Your task to perform on an android device: How much does a 3 bedroom apartment rent for in New York? Image 0: 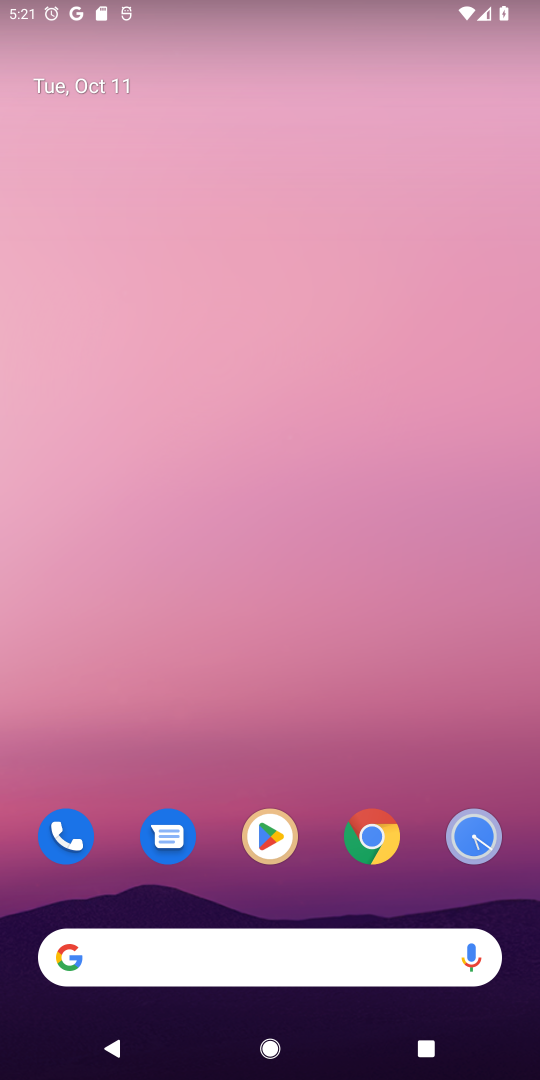
Step 0: click (300, 964)
Your task to perform on an android device: How much does a 3 bedroom apartment rent for in New York? Image 1: 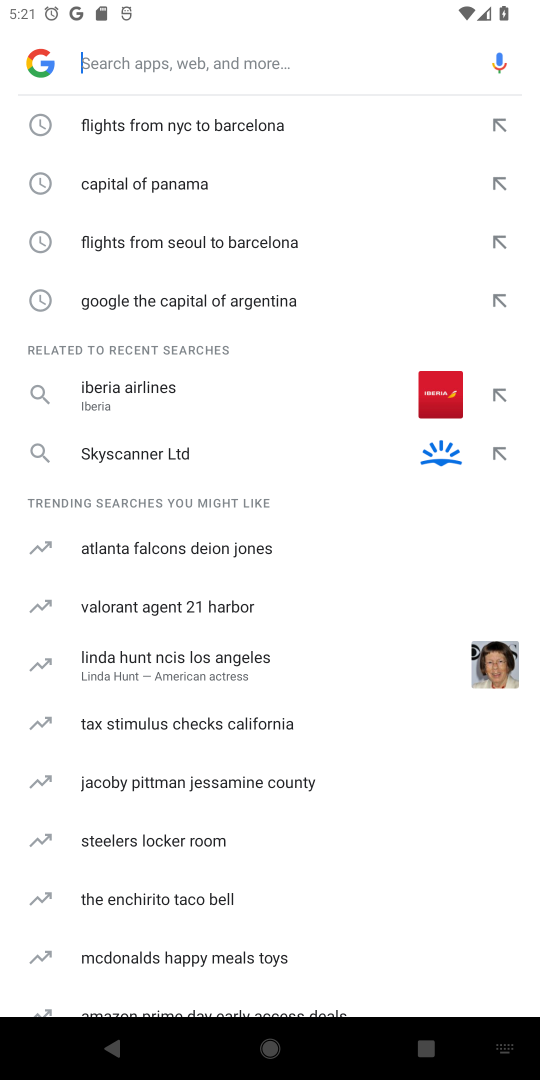
Step 1: type "How much does a 3 bedroom apartment rent for in New York"
Your task to perform on an android device: How much does a 3 bedroom apartment rent for in New York? Image 2: 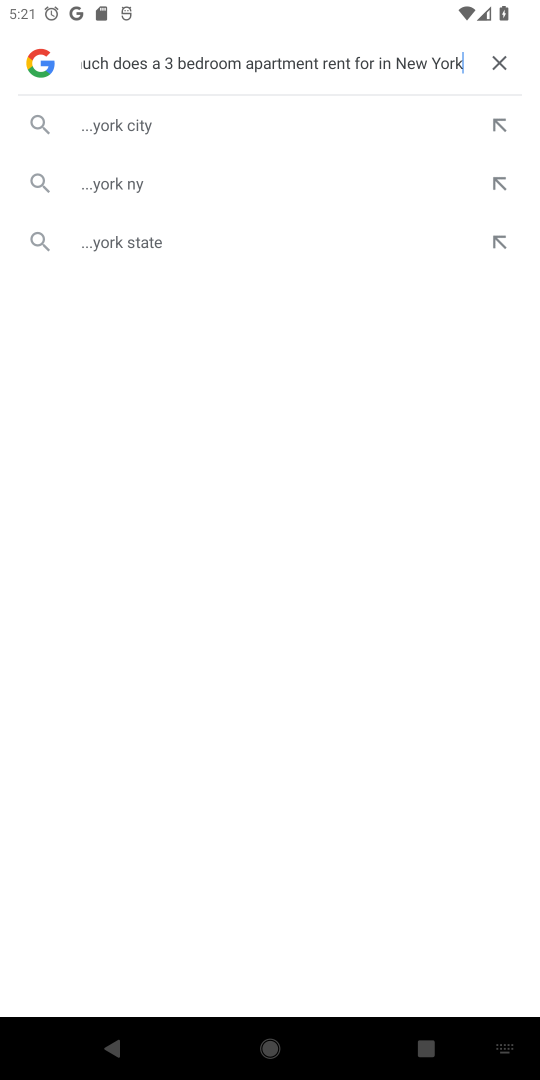
Step 2: click (203, 131)
Your task to perform on an android device: How much does a 3 bedroom apartment rent for in New York? Image 3: 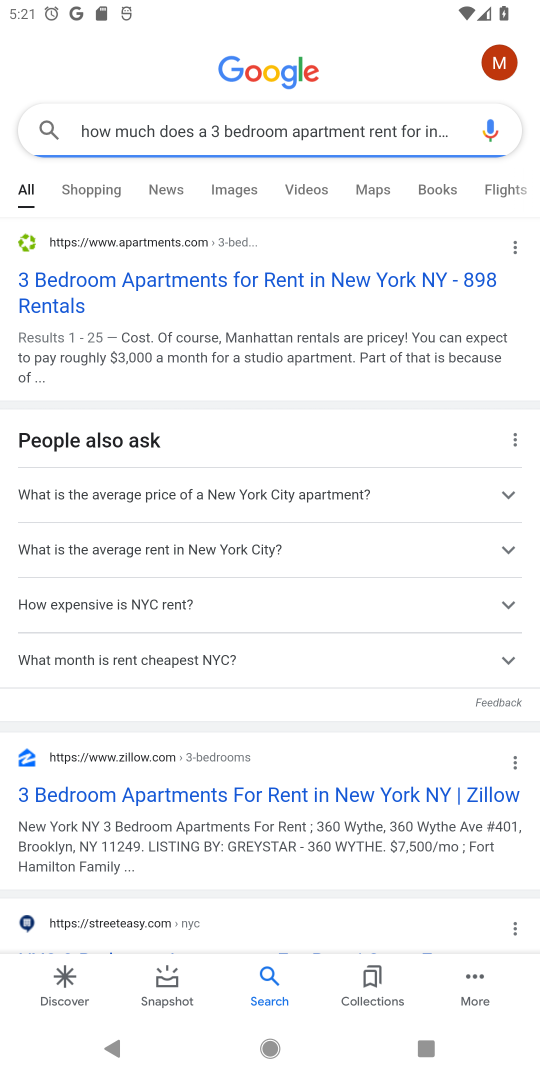
Step 3: task complete